Your task to perform on an android device: star an email in the gmail app Image 0: 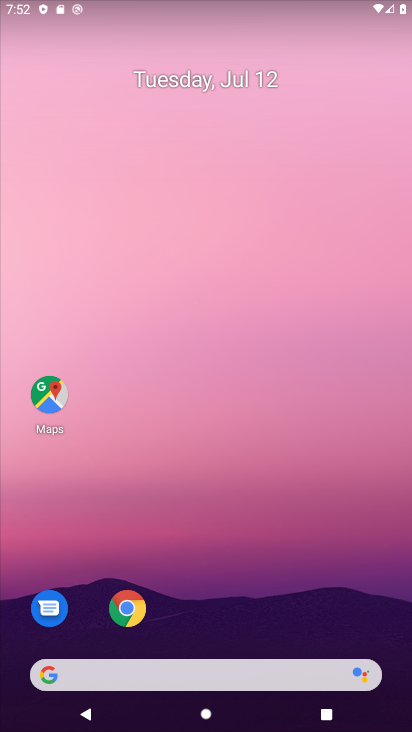
Step 0: drag from (159, 679) to (324, 210)
Your task to perform on an android device: star an email in the gmail app Image 1: 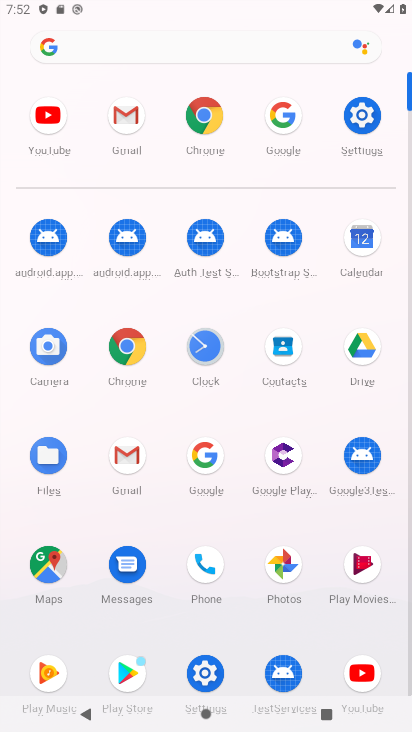
Step 1: click (127, 117)
Your task to perform on an android device: star an email in the gmail app Image 2: 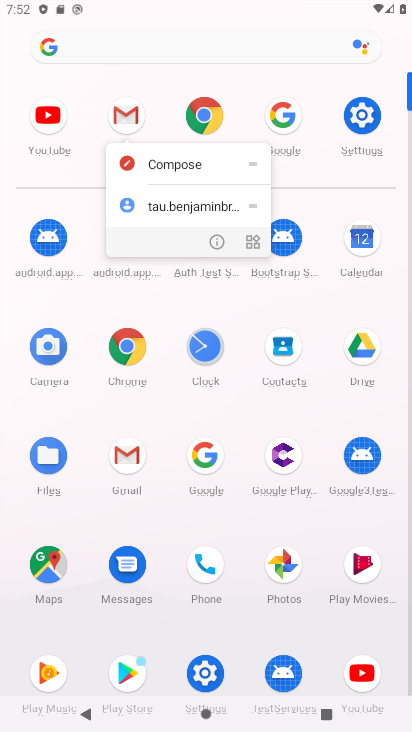
Step 2: click (126, 119)
Your task to perform on an android device: star an email in the gmail app Image 3: 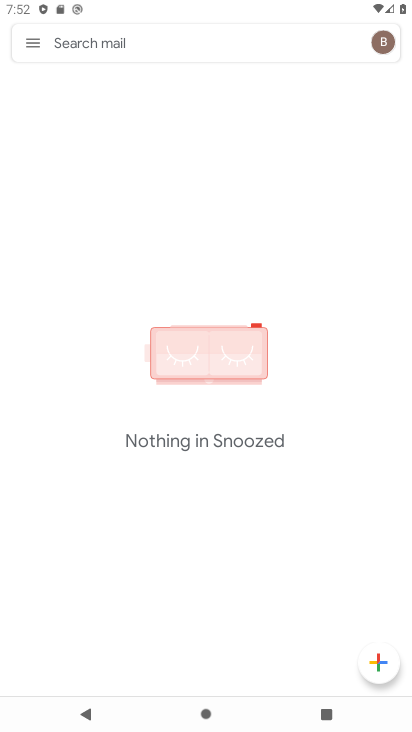
Step 3: click (33, 49)
Your task to perform on an android device: star an email in the gmail app Image 4: 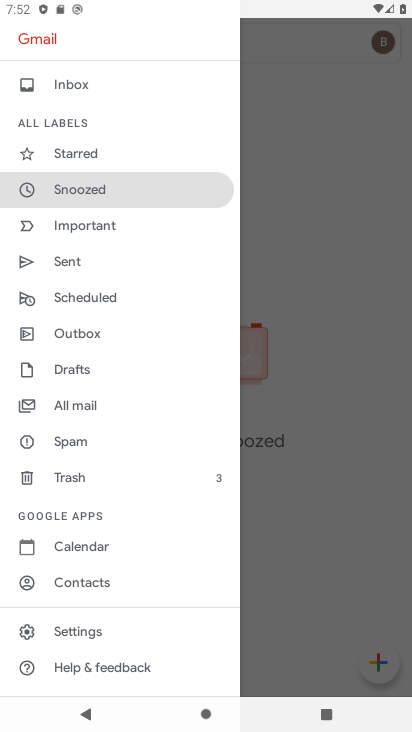
Step 4: click (82, 84)
Your task to perform on an android device: star an email in the gmail app Image 5: 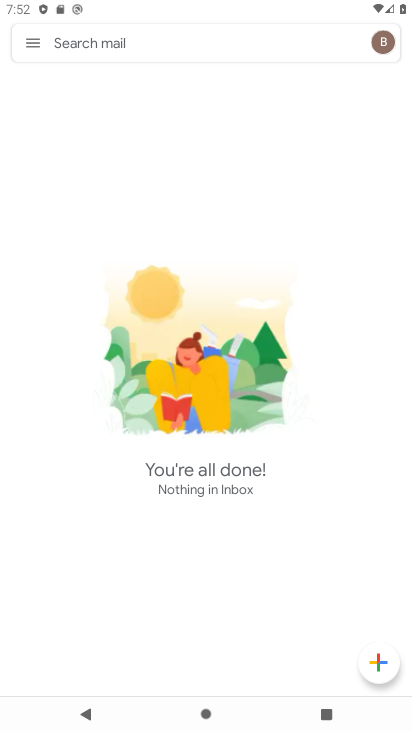
Step 5: task complete